Your task to perform on an android device: Open Google Maps and go to "Timeline" Image 0: 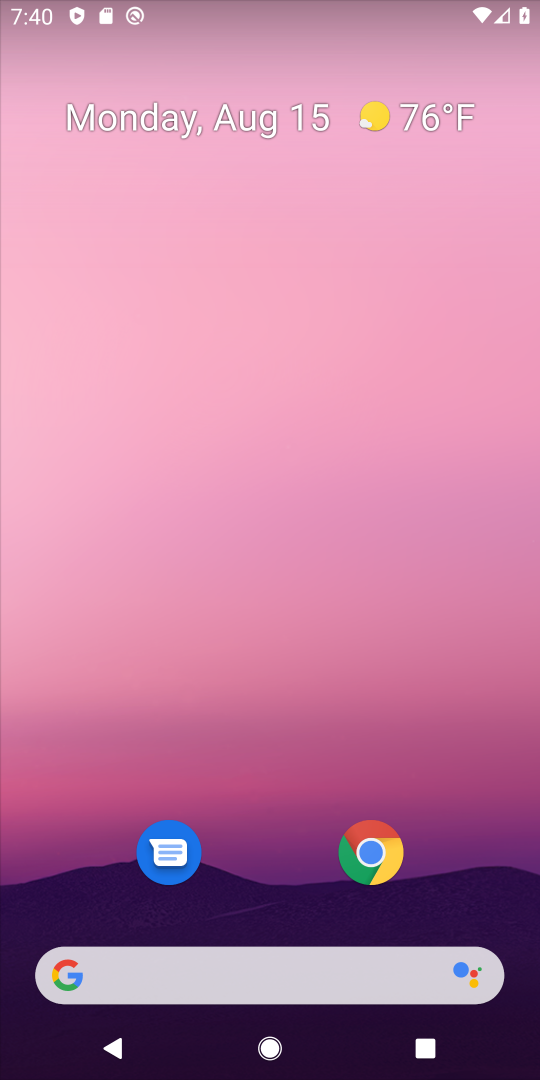
Step 0: drag from (254, 950) to (310, 55)
Your task to perform on an android device: Open Google Maps and go to "Timeline" Image 1: 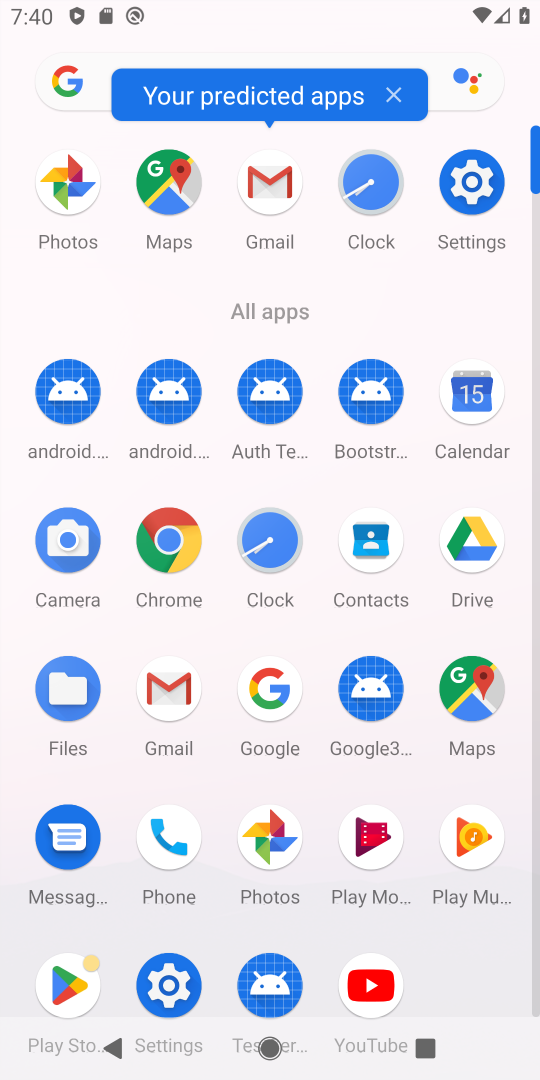
Step 1: click (170, 189)
Your task to perform on an android device: Open Google Maps and go to "Timeline" Image 2: 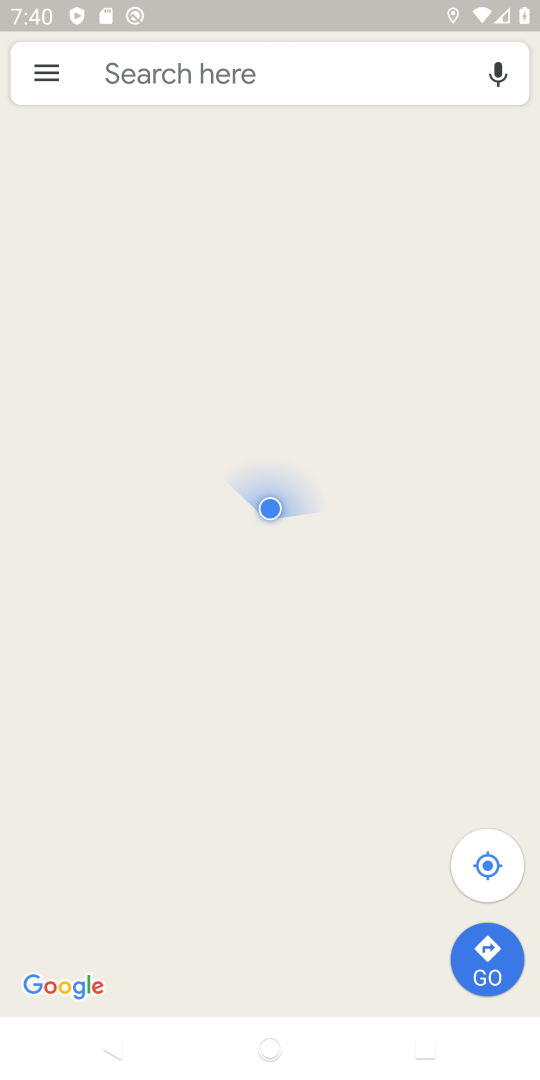
Step 2: click (47, 78)
Your task to perform on an android device: Open Google Maps and go to "Timeline" Image 3: 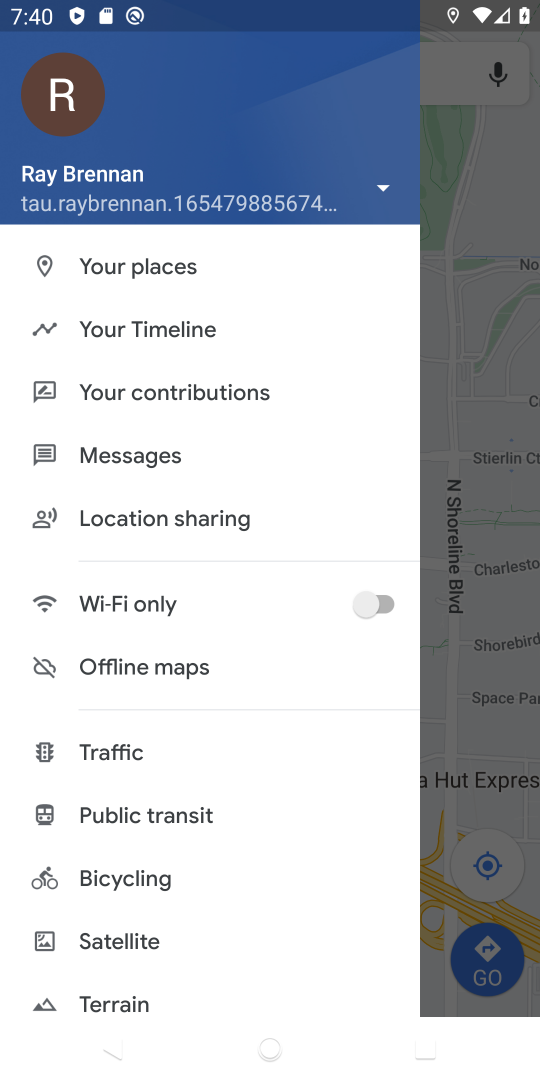
Step 3: click (144, 329)
Your task to perform on an android device: Open Google Maps and go to "Timeline" Image 4: 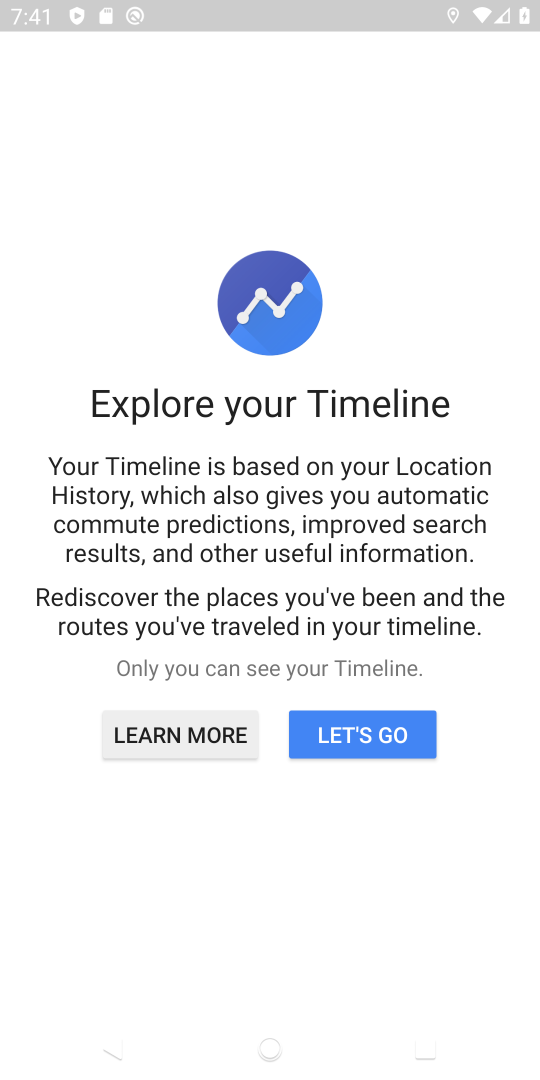
Step 4: click (369, 722)
Your task to perform on an android device: Open Google Maps and go to "Timeline" Image 5: 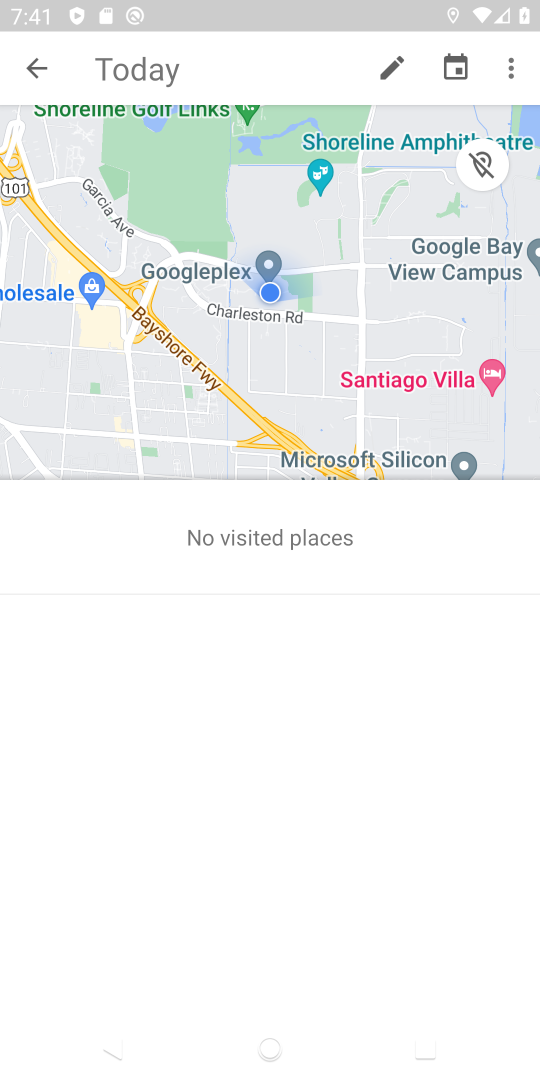
Step 5: task complete